Your task to perform on an android device: toggle improve location accuracy Image 0: 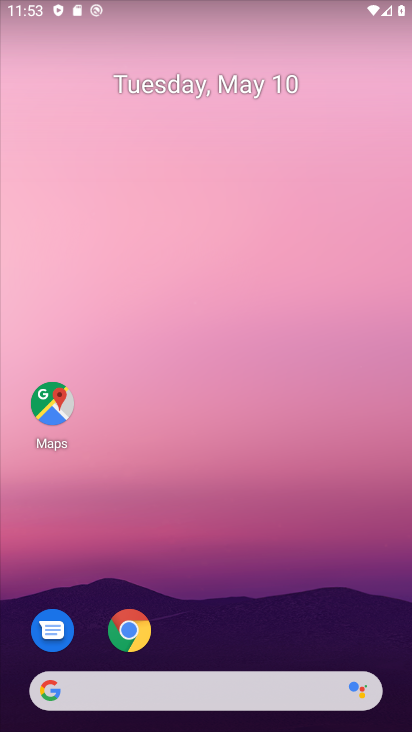
Step 0: drag from (183, 659) to (181, 0)
Your task to perform on an android device: toggle improve location accuracy Image 1: 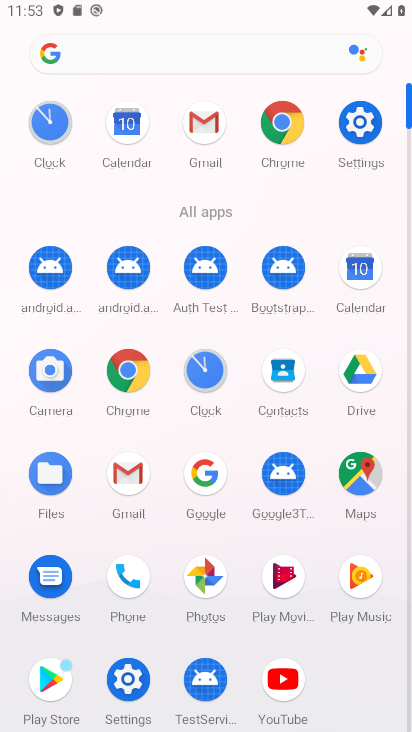
Step 1: click (377, 125)
Your task to perform on an android device: toggle improve location accuracy Image 2: 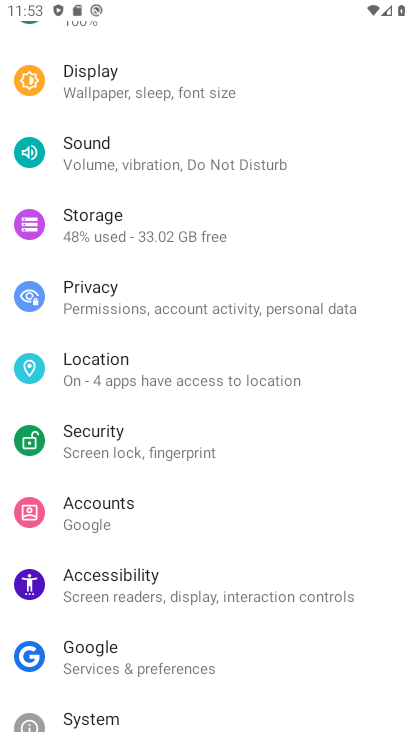
Step 2: click (116, 352)
Your task to perform on an android device: toggle improve location accuracy Image 3: 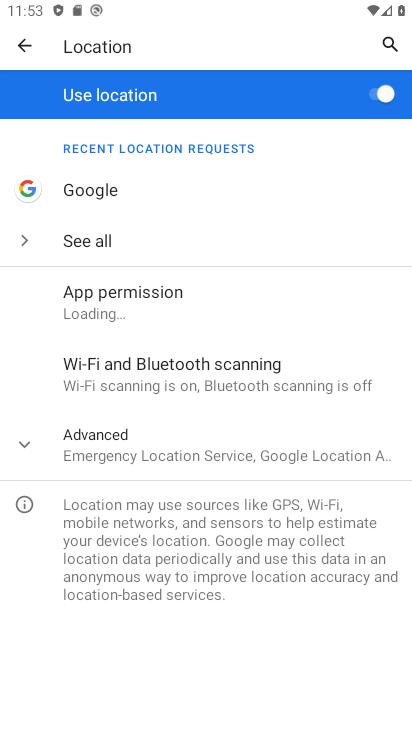
Step 3: click (150, 438)
Your task to perform on an android device: toggle improve location accuracy Image 4: 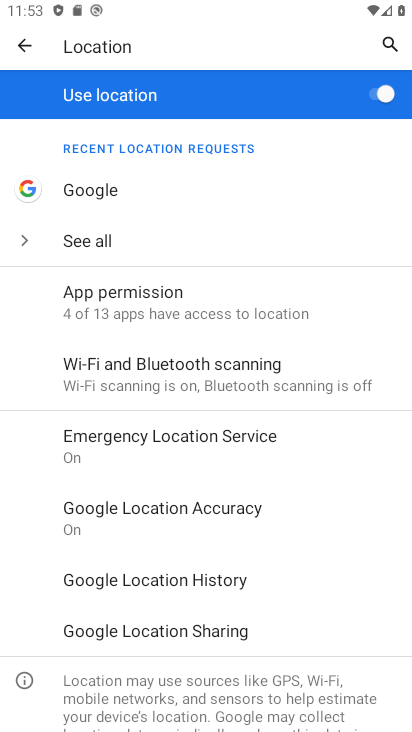
Step 4: click (172, 520)
Your task to perform on an android device: toggle improve location accuracy Image 5: 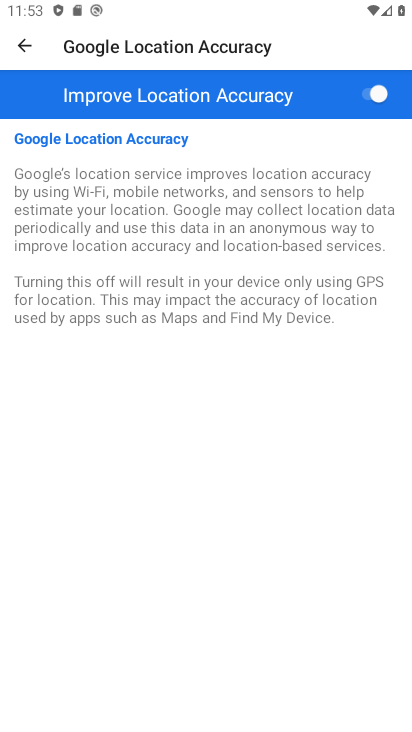
Step 5: click (362, 93)
Your task to perform on an android device: toggle improve location accuracy Image 6: 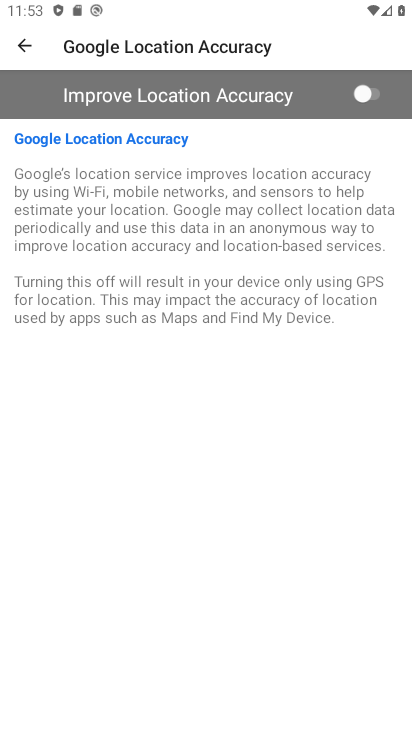
Step 6: task complete